Your task to perform on an android device: Search for seafood restaurants on Google Maps Image 0: 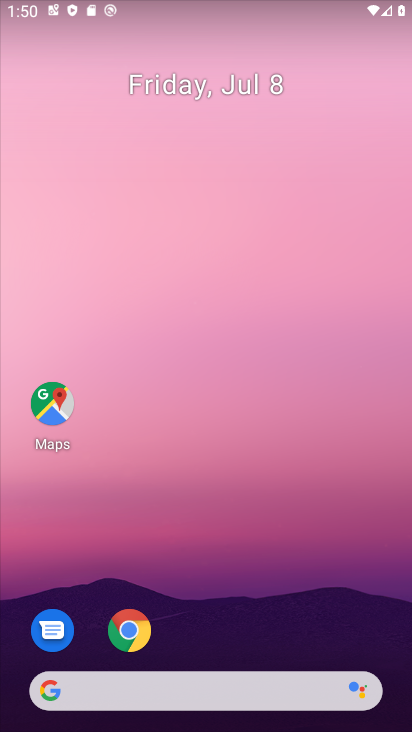
Step 0: drag from (211, 647) to (198, 60)
Your task to perform on an android device: Search for seafood restaurants on Google Maps Image 1: 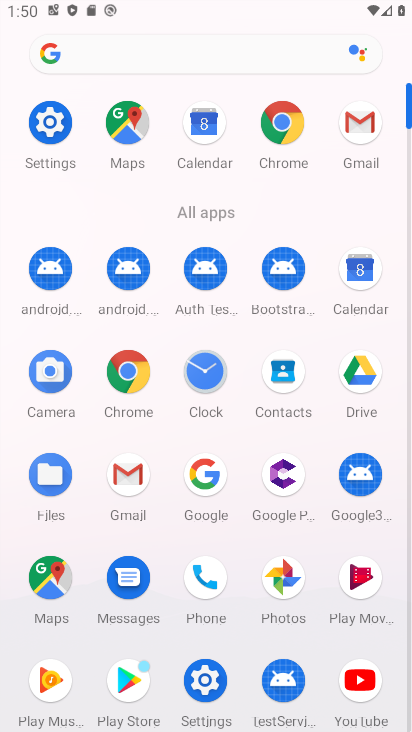
Step 1: click (51, 574)
Your task to perform on an android device: Search for seafood restaurants on Google Maps Image 2: 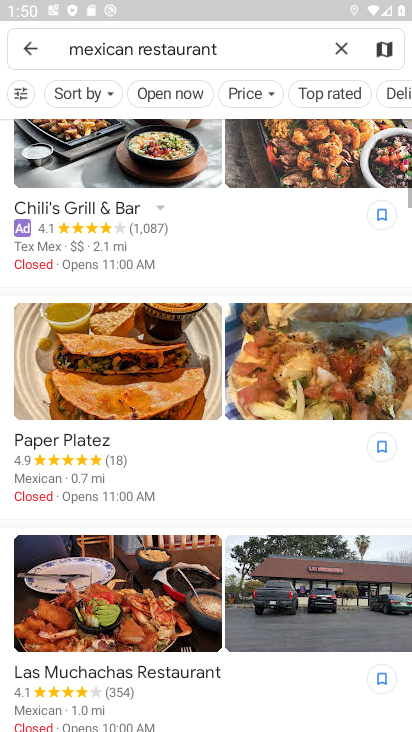
Step 2: click (342, 44)
Your task to perform on an android device: Search for seafood restaurants on Google Maps Image 3: 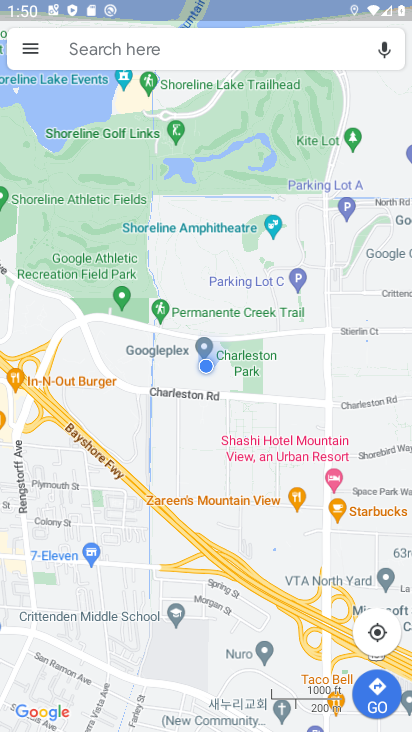
Step 3: click (161, 43)
Your task to perform on an android device: Search for seafood restaurants on Google Maps Image 4: 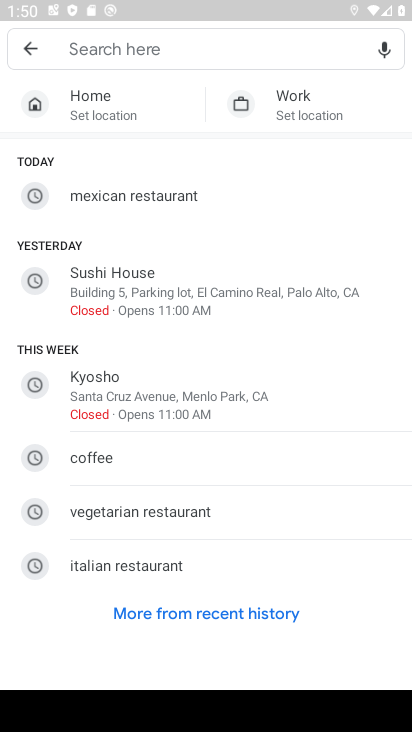
Step 4: type "seafood restaurant"
Your task to perform on an android device: Search for seafood restaurants on Google Maps Image 5: 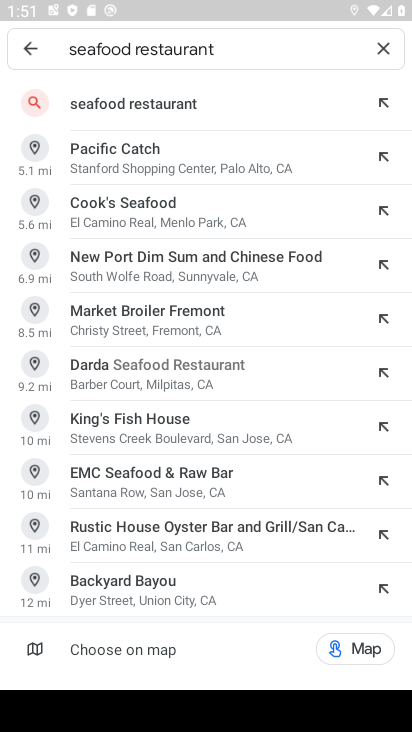
Step 5: click (181, 110)
Your task to perform on an android device: Search for seafood restaurants on Google Maps Image 6: 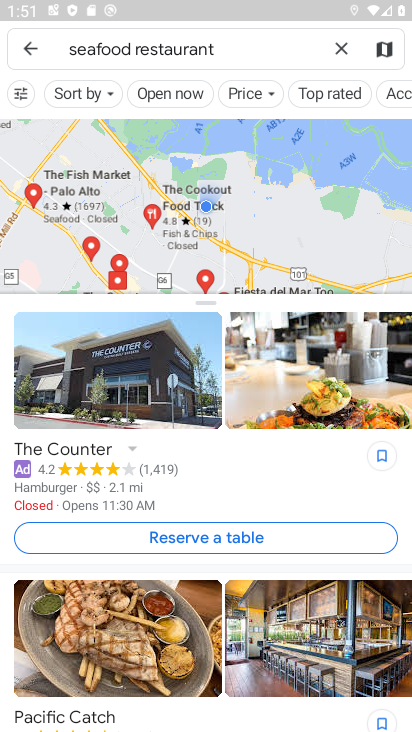
Step 6: drag from (231, 485) to (195, 99)
Your task to perform on an android device: Search for seafood restaurants on Google Maps Image 7: 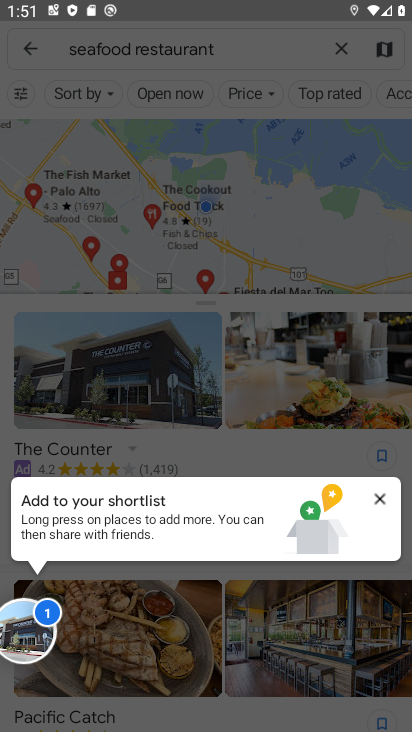
Step 7: click (383, 496)
Your task to perform on an android device: Search for seafood restaurants on Google Maps Image 8: 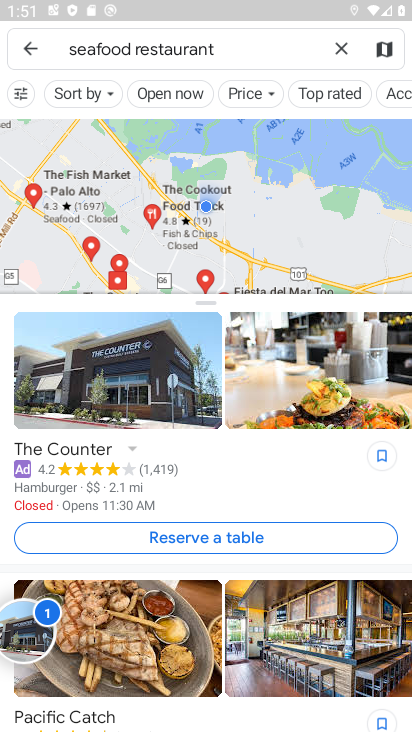
Step 8: drag from (24, 635) to (244, 716)
Your task to perform on an android device: Search for seafood restaurants on Google Maps Image 9: 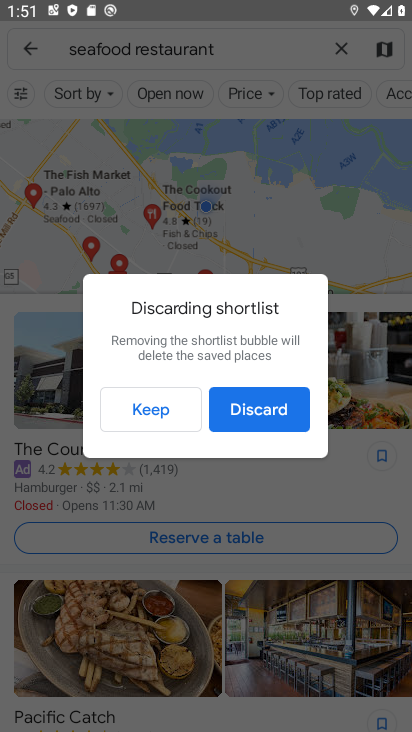
Step 9: click (253, 407)
Your task to perform on an android device: Search for seafood restaurants on Google Maps Image 10: 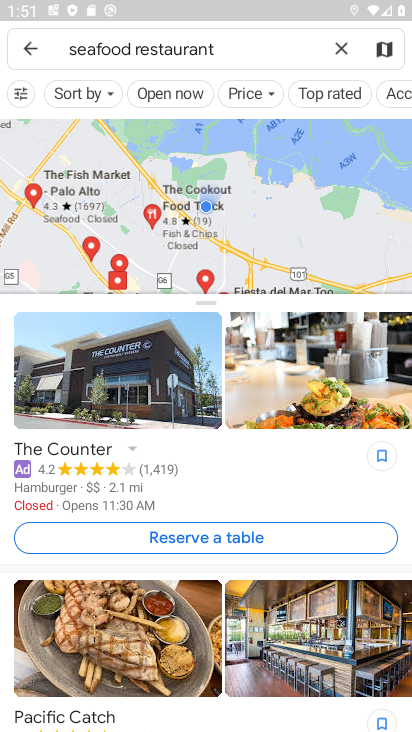
Step 10: task complete